Your task to perform on an android device: Open the calendar app, open the side menu, and click the "Day" option Image 0: 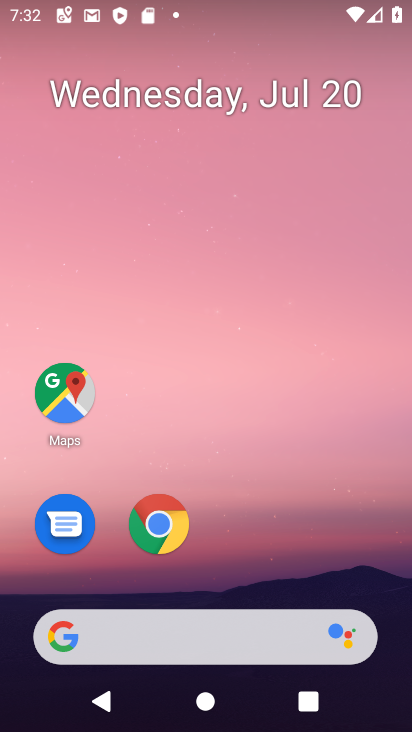
Step 0: drag from (188, 610) to (305, 178)
Your task to perform on an android device: Open the calendar app, open the side menu, and click the "Day" option Image 1: 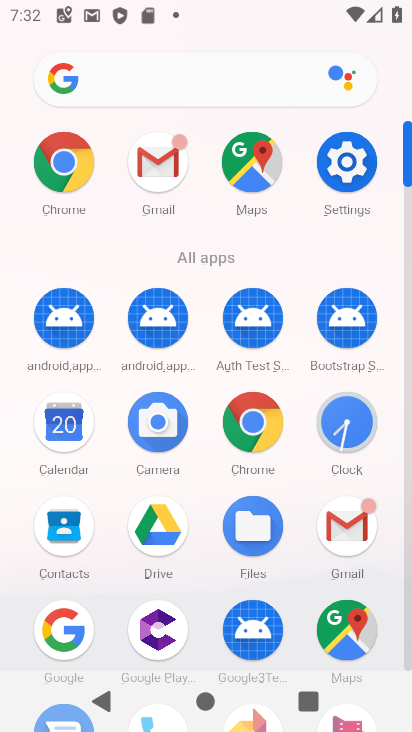
Step 1: click (63, 429)
Your task to perform on an android device: Open the calendar app, open the side menu, and click the "Day" option Image 2: 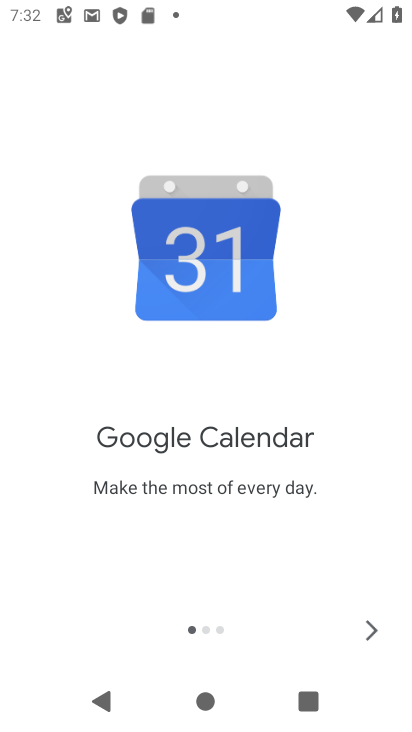
Step 2: click (365, 631)
Your task to perform on an android device: Open the calendar app, open the side menu, and click the "Day" option Image 3: 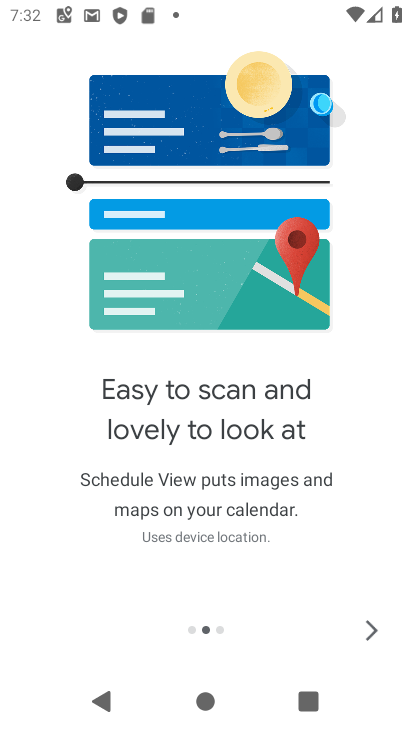
Step 3: click (365, 630)
Your task to perform on an android device: Open the calendar app, open the side menu, and click the "Day" option Image 4: 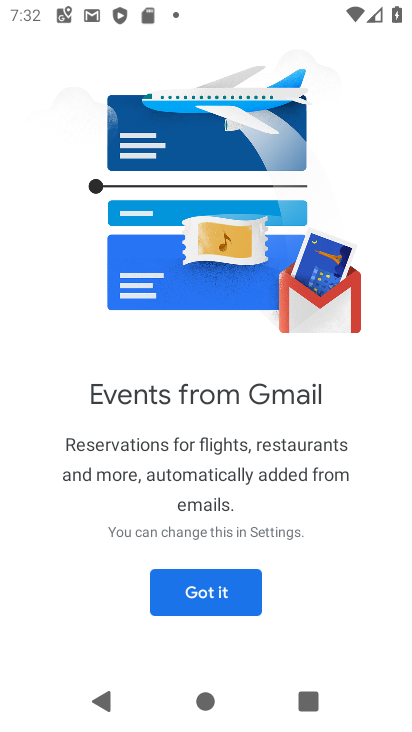
Step 4: click (221, 590)
Your task to perform on an android device: Open the calendar app, open the side menu, and click the "Day" option Image 5: 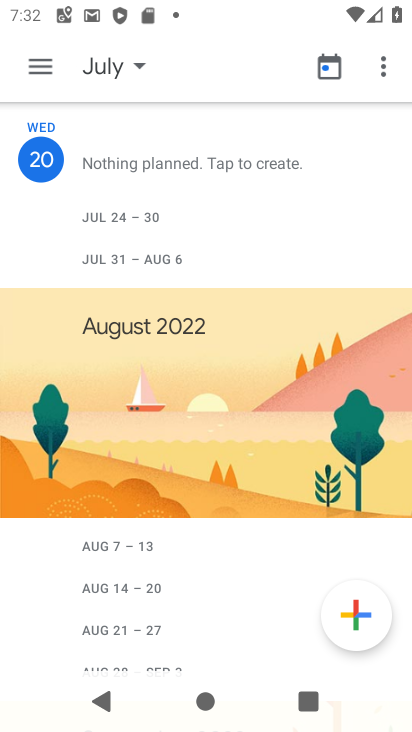
Step 5: click (31, 64)
Your task to perform on an android device: Open the calendar app, open the side menu, and click the "Day" option Image 6: 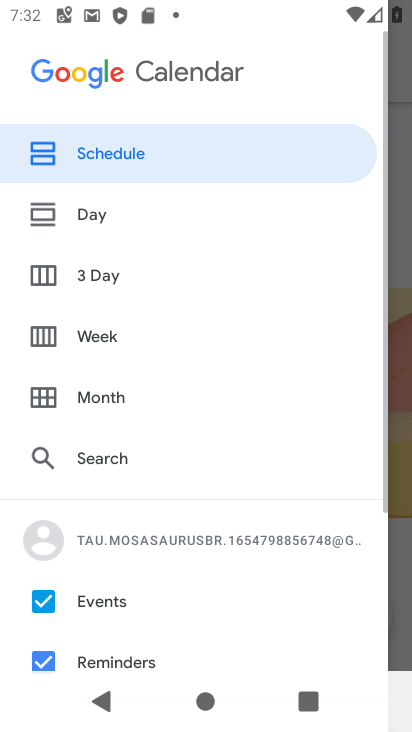
Step 6: click (97, 225)
Your task to perform on an android device: Open the calendar app, open the side menu, and click the "Day" option Image 7: 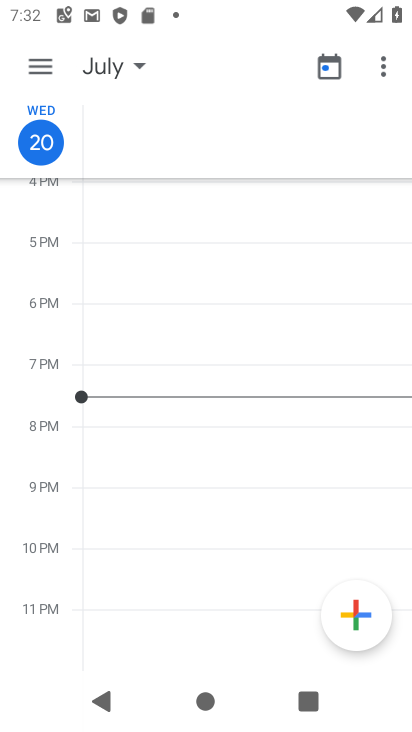
Step 7: task complete